Your task to perform on an android device: turn notification dots on Image 0: 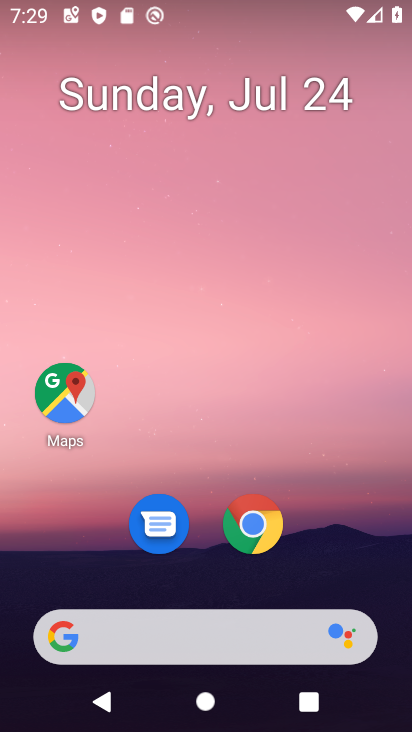
Step 0: drag from (194, 639) to (281, 245)
Your task to perform on an android device: turn notification dots on Image 1: 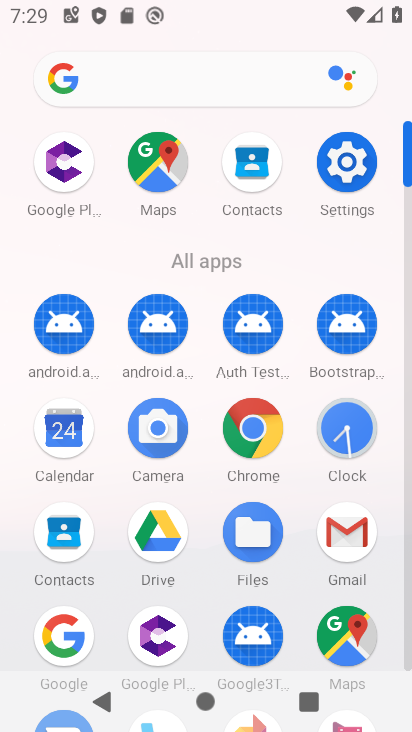
Step 1: click (350, 163)
Your task to perform on an android device: turn notification dots on Image 2: 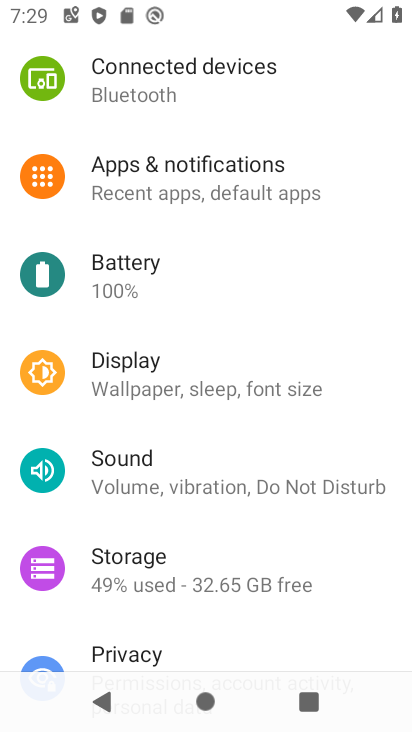
Step 2: click (174, 173)
Your task to perform on an android device: turn notification dots on Image 3: 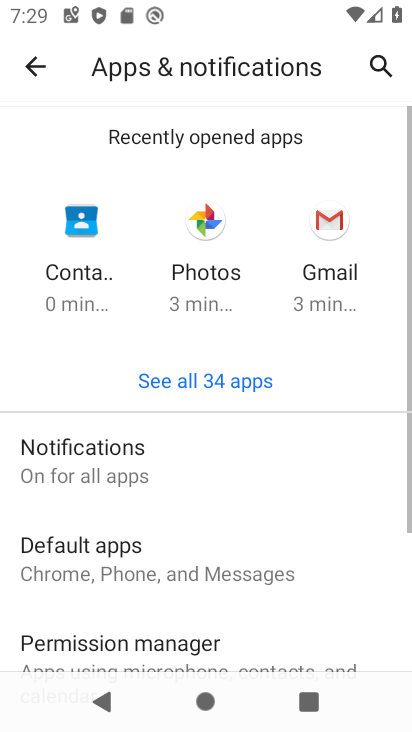
Step 3: click (105, 451)
Your task to perform on an android device: turn notification dots on Image 4: 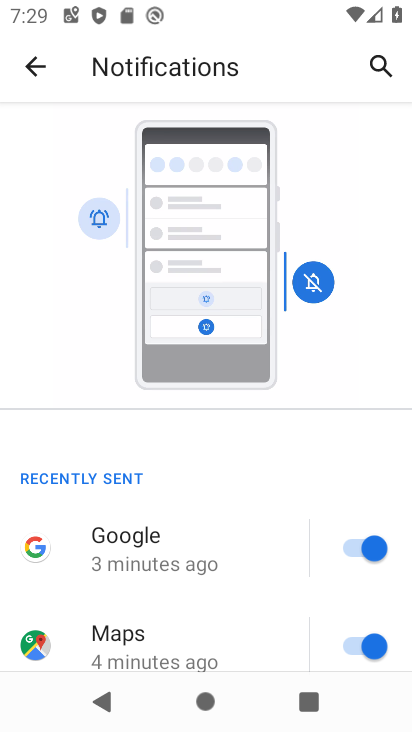
Step 4: drag from (221, 598) to (291, 256)
Your task to perform on an android device: turn notification dots on Image 5: 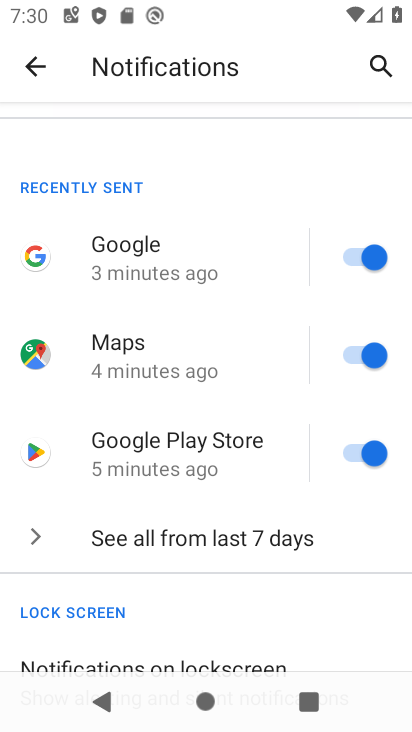
Step 5: drag from (271, 656) to (293, 365)
Your task to perform on an android device: turn notification dots on Image 6: 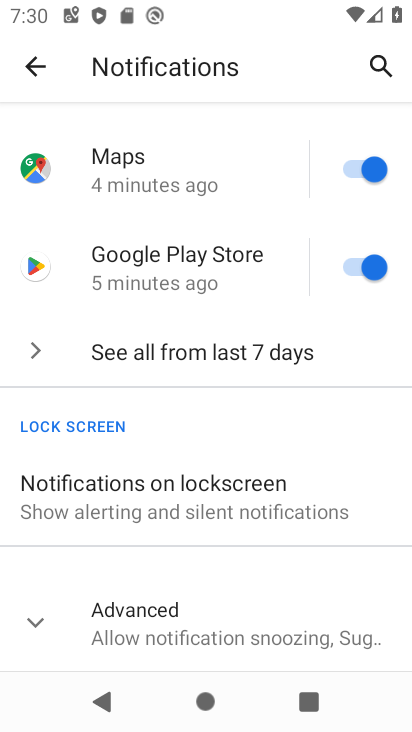
Step 6: click (145, 610)
Your task to perform on an android device: turn notification dots on Image 7: 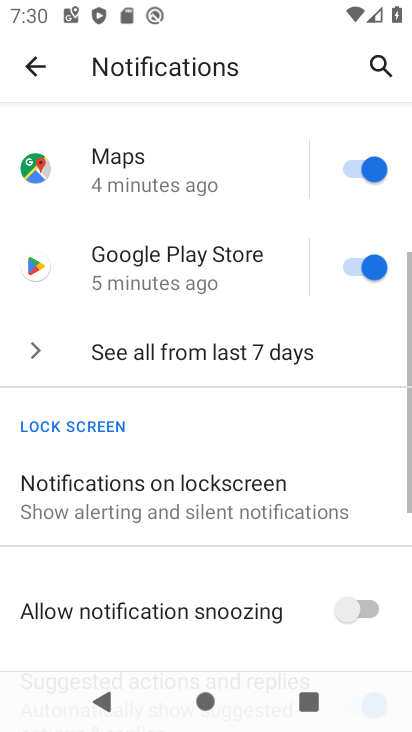
Step 7: task complete